Your task to perform on an android device: toggle javascript in the chrome app Image 0: 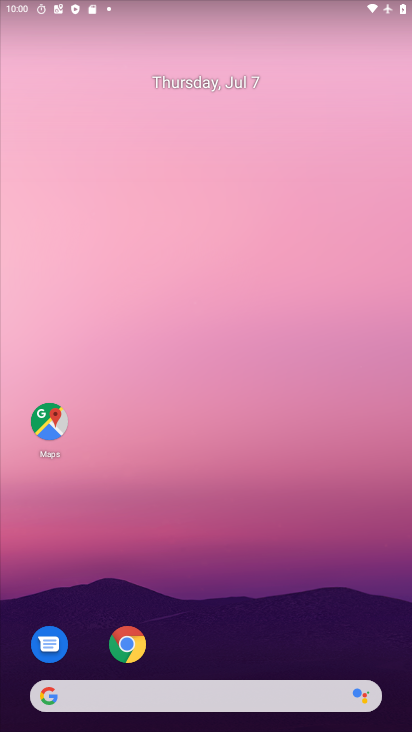
Step 0: click (130, 643)
Your task to perform on an android device: toggle javascript in the chrome app Image 1: 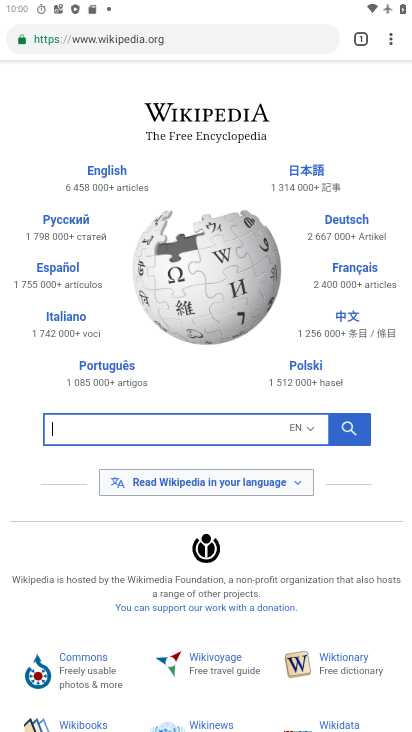
Step 1: drag from (387, 35) to (260, 469)
Your task to perform on an android device: toggle javascript in the chrome app Image 2: 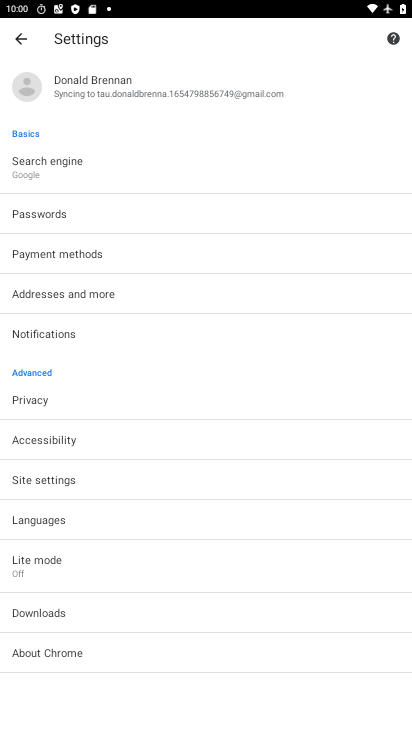
Step 2: click (59, 484)
Your task to perform on an android device: toggle javascript in the chrome app Image 3: 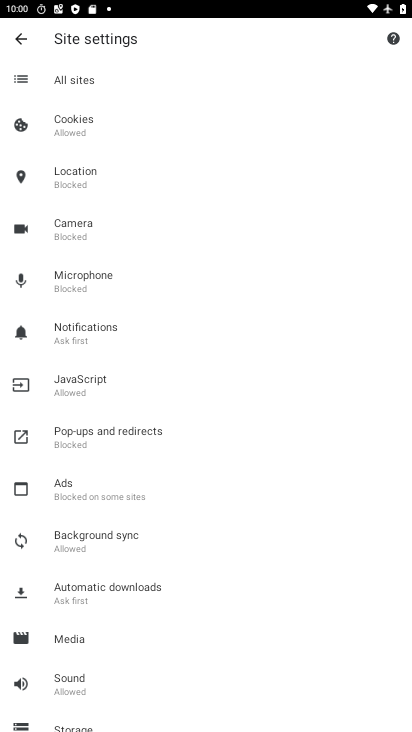
Step 3: click (71, 382)
Your task to perform on an android device: toggle javascript in the chrome app Image 4: 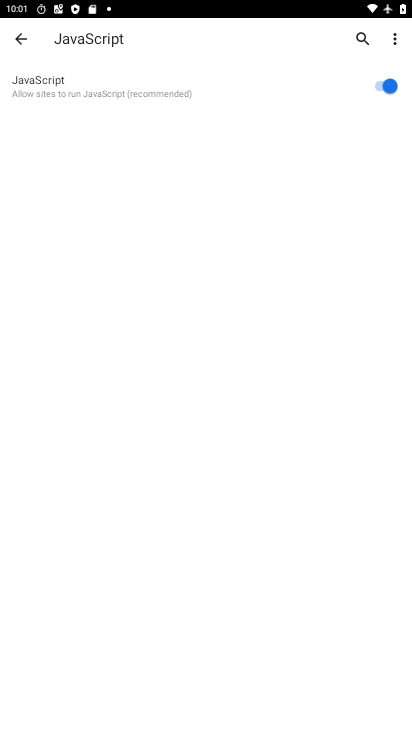
Step 4: click (385, 84)
Your task to perform on an android device: toggle javascript in the chrome app Image 5: 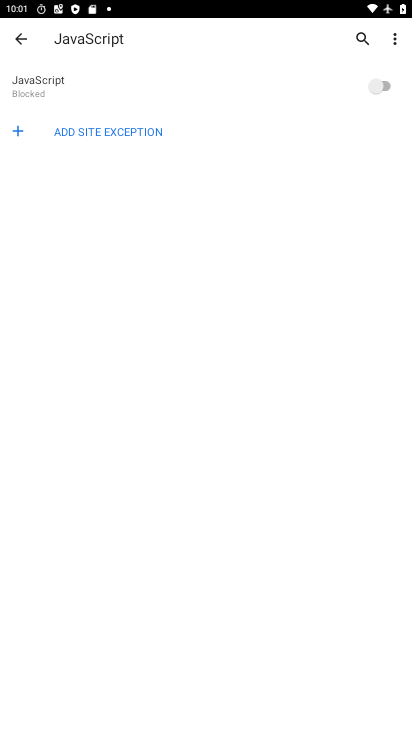
Step 5: task complete